Your task to perform on an android device: Go to accessibility settings Image 0: 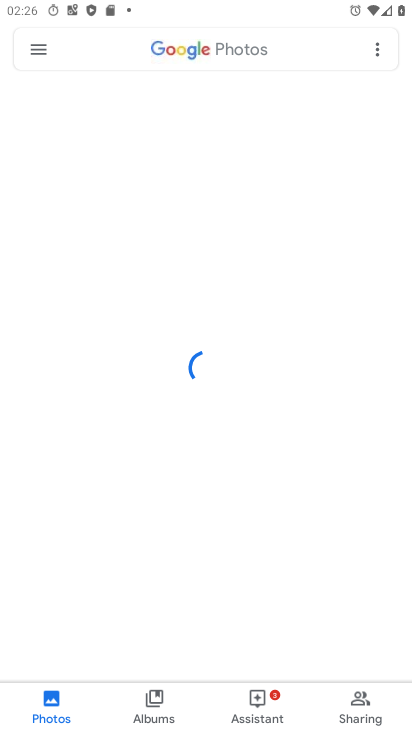
Step 0: press home button
Your task to perform on an android device: Go to accessibility settings Image 1: 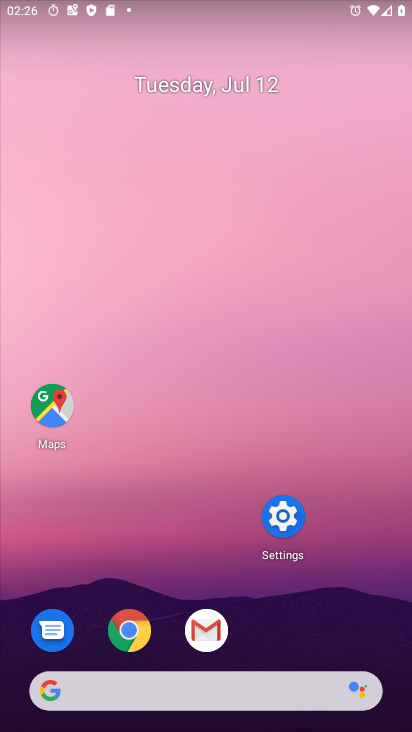
Step 1: click (275, 526)
Your task to perform on an android device: Go to accessibility settings Image 2: 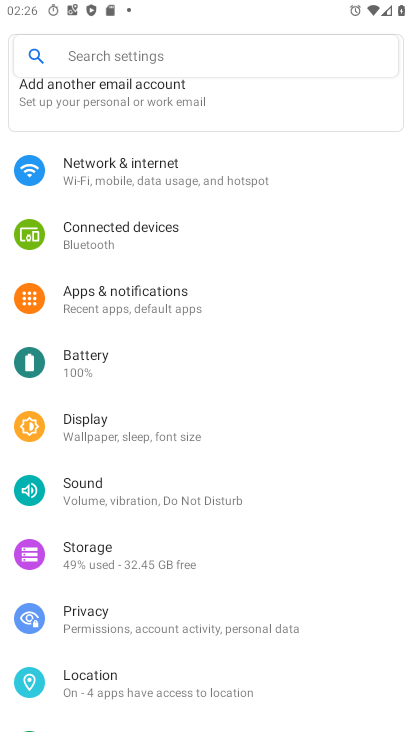
Step 2: click (111, 63)
Your task to perform on an android device: Go to accessibility settings Image 3: 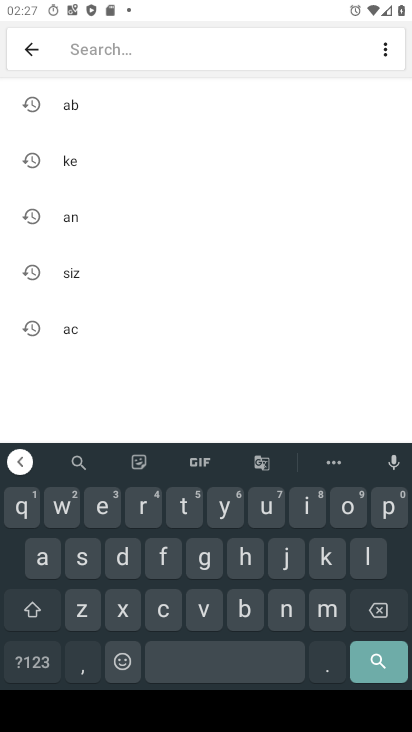
Step 3: click (34, 571)
Your task to perform on an android device: Go to accessibility settings Image 4: 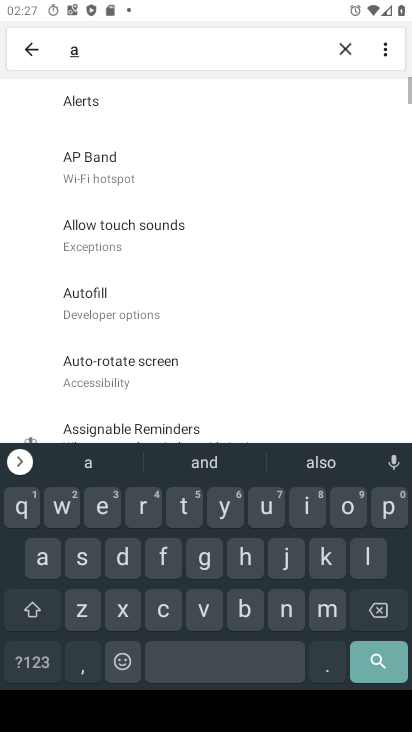
Step 4: click (159, 614)
Your task to perform on an android device: Go to accessibility settings Image 5: 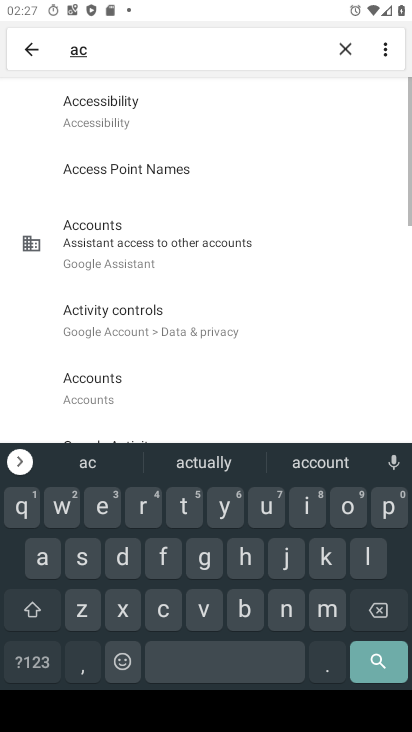
Step 5: click (113, 512)
Your task to perform on an android device: Go to accessibility settings Image 6: 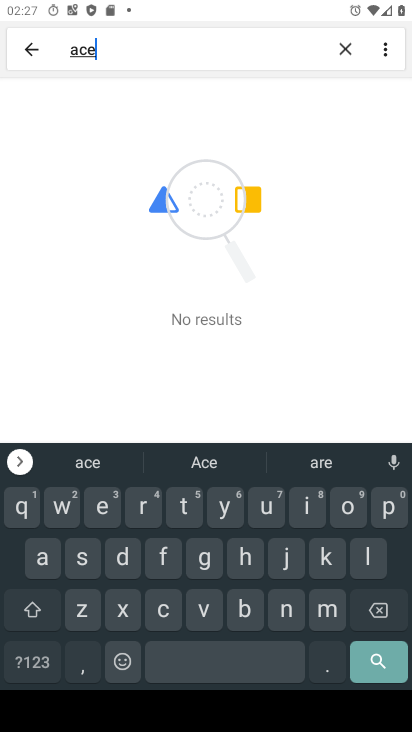
Step 6: click (384, 619)
Your task to perform on an android device: Go to accessibility settings Image 7: 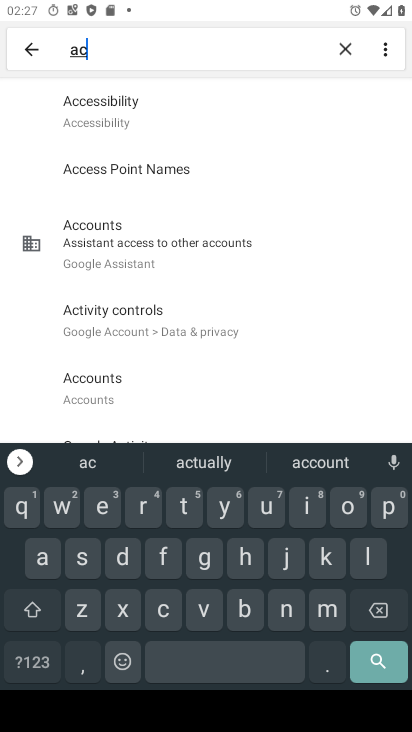
Step 7: click (105, 98)
Your task to perform on an android device: Go to accessibility settings Image 8: 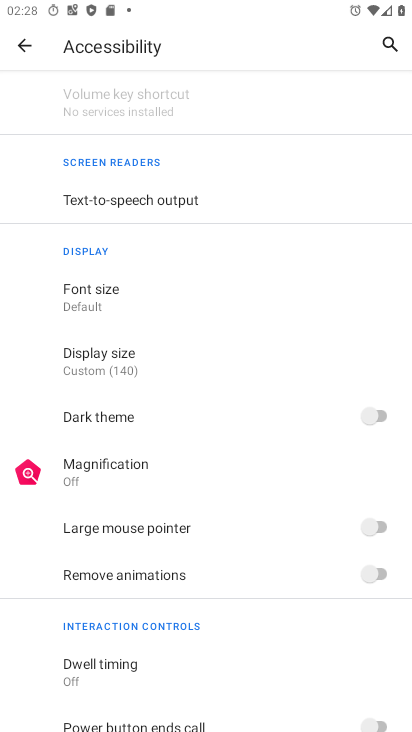
Step 8: task complete